Your task to perform on an android device: Open my contact list Image 0: 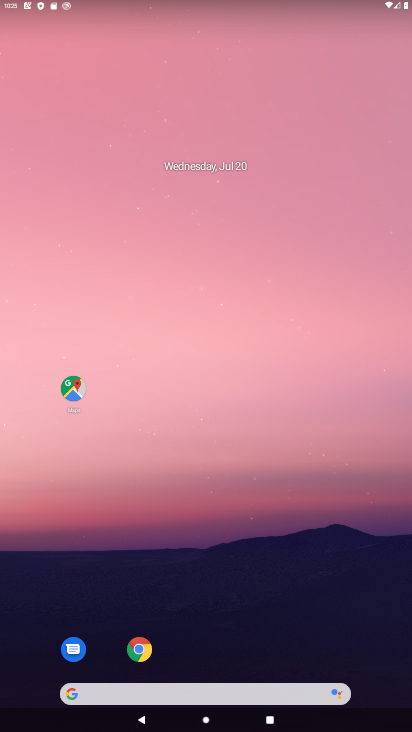
Step 0: drag from (369, 602) to (259, 123)
Your task to perform on an android device: Open my contact list Image 1: 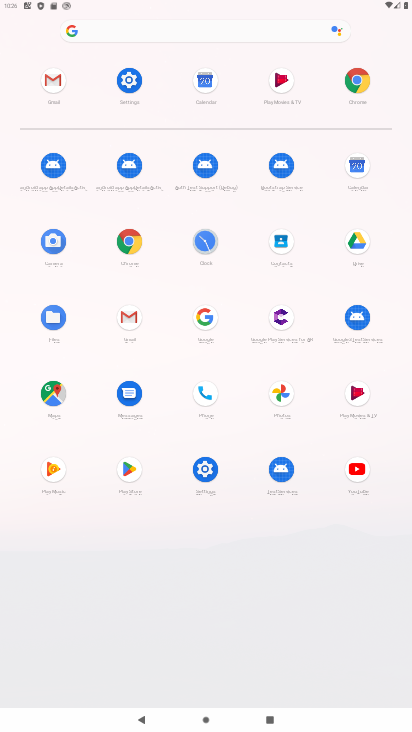
Step 1: click (199, 86)
Your task to perform on an android device: Open my contact list Image 2: 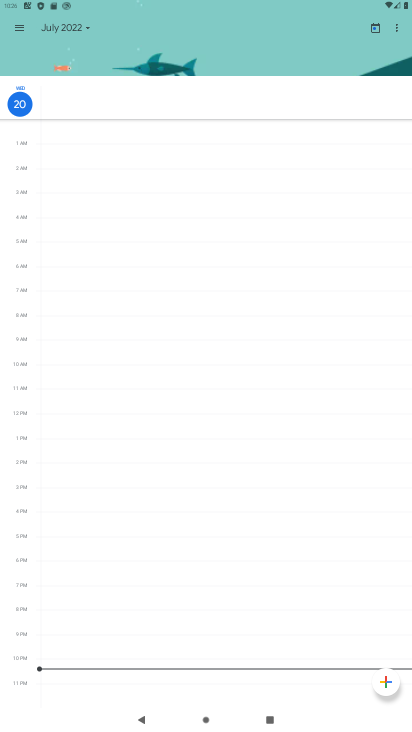
Step 2: task complete